Your task to perform on an android device: Play the last video I watched on Youtube Image 0: 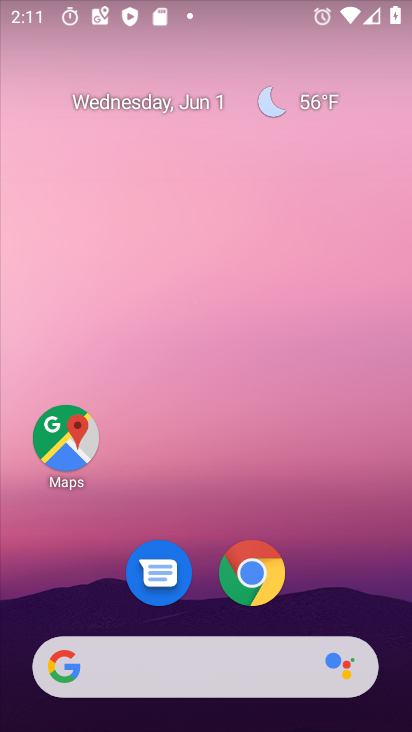
Step 0: drag from (348, 571) to (303, 3)
Your task to perform on an android device: Play the last video I watched on Youtube Image 1: 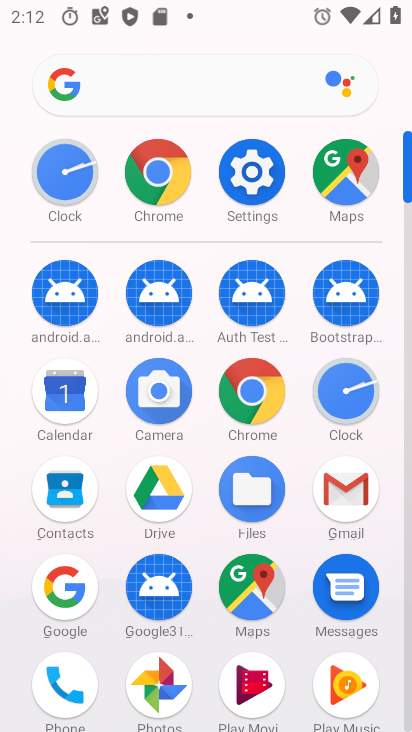
Step 1: drag from (388, 663) to (333, 186)
Your task to perform on an android device: Play the last video I watched on Youtube Image 2: 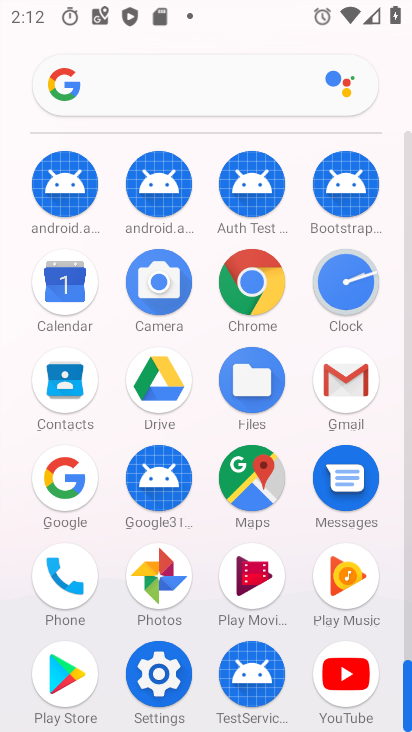
Step 2: click (347, 650)
Your task to perform on an android device: Play the last video I watched on Youtube Image 3: 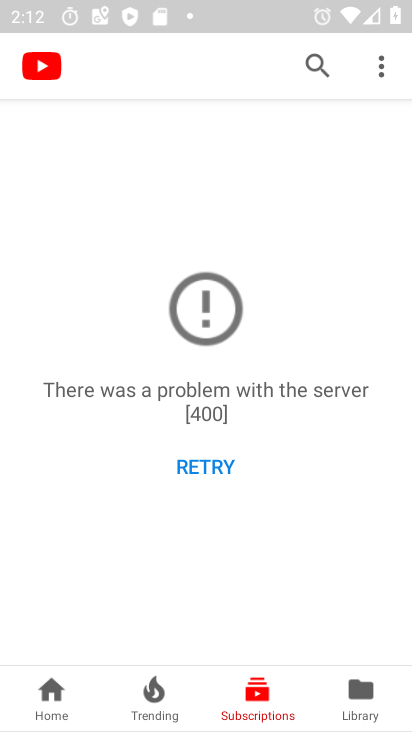
Step 3: click (382, 711)
Your task to perform on an android device: Play the last video I watched on Youtube Image 4: 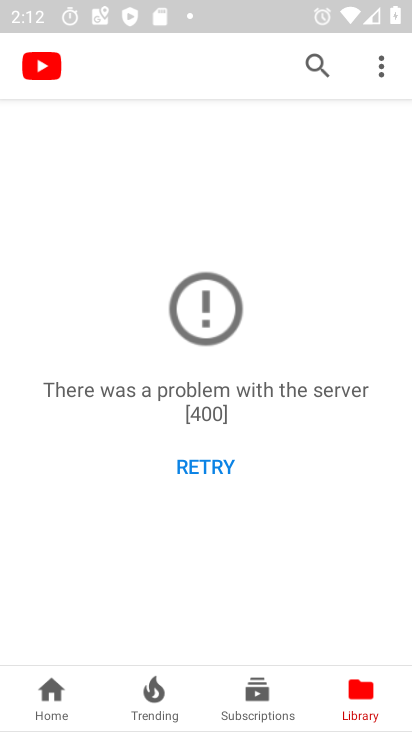
Step 4: click (213, 482)
Your task to perform on an android device: Play the last video I watched on Youtube Image 5: 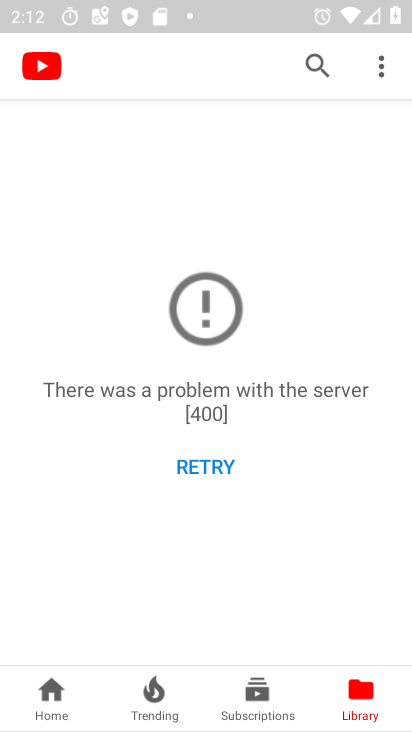
Step 5: task complete